Your task to perform on an android device: Go to Maps Image 0: 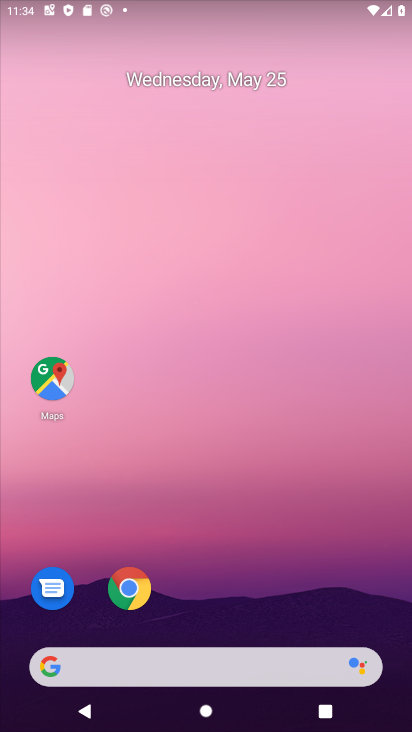
Step 0: drag from (236, 570) to (219, 27)
Your task to perform on an android device: Go to Maps Image 1: 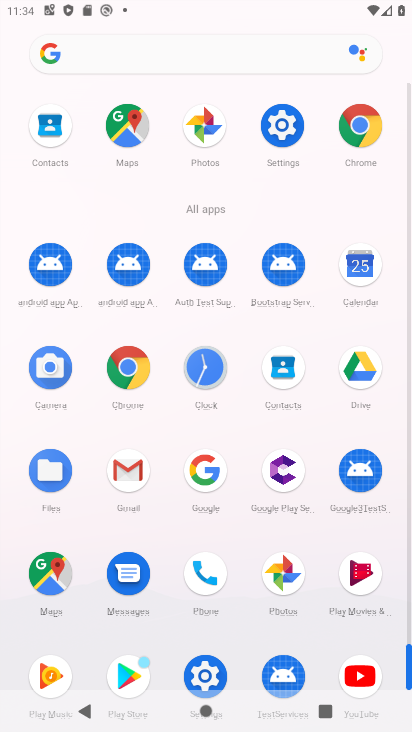
Step 1: click (46, 574)
Your task to perform on an android device: Go to Maps Image 2: 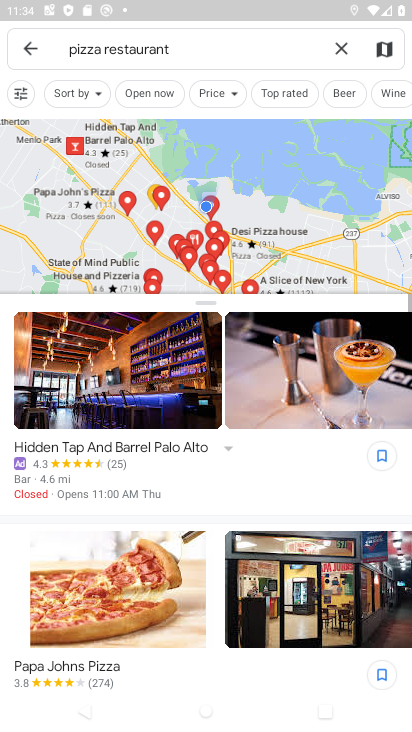
Step 2: click (35, 46)
Your task to perform on an android device: Go to Maps Image 3: 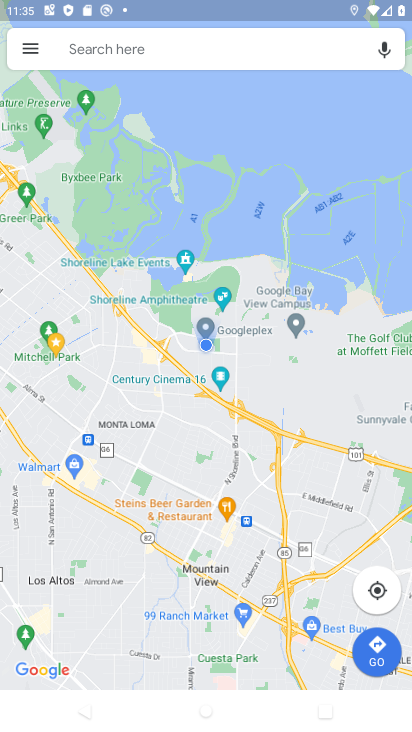
Step 3: task complete